Your task to perform on an android device: Open calendar and show me the second week of next month Image 0: 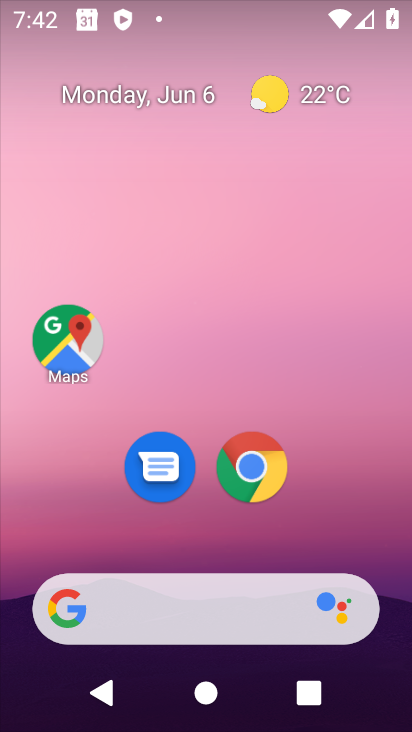
Step 0: drag from (386, 510) to (372, 175)
Your task to perform on an android device: Open calendar and show me the second week of next month Image 1: 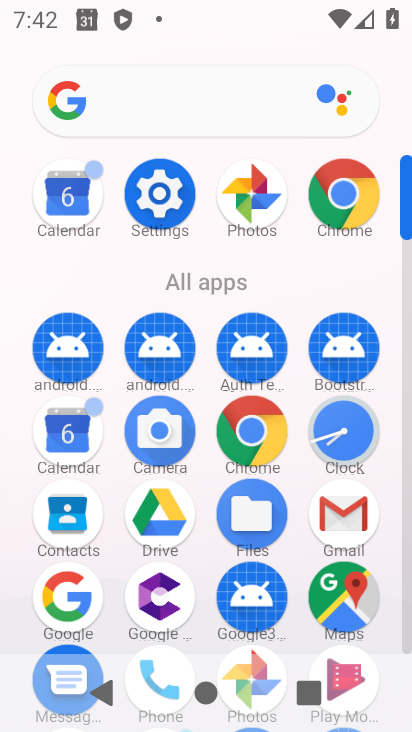
Step 1: click (77, 453)
Your task to perform on an android device: Open calendar and show me the second week of next month Image 2: 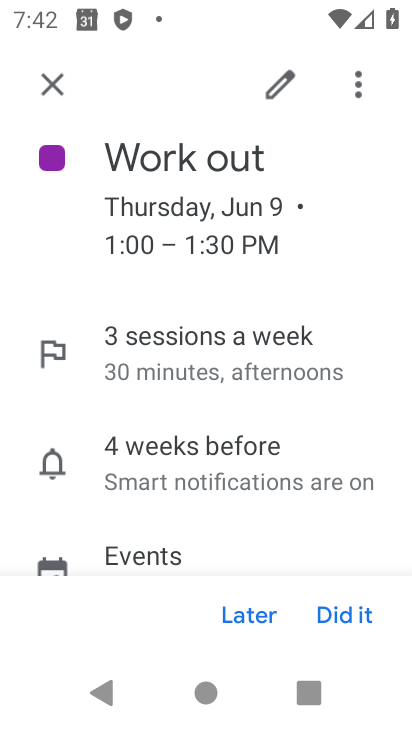
Step 2: click (53, 89)
Your task to perform on an android device: Open calendar and show me the second week of next month Image 3: 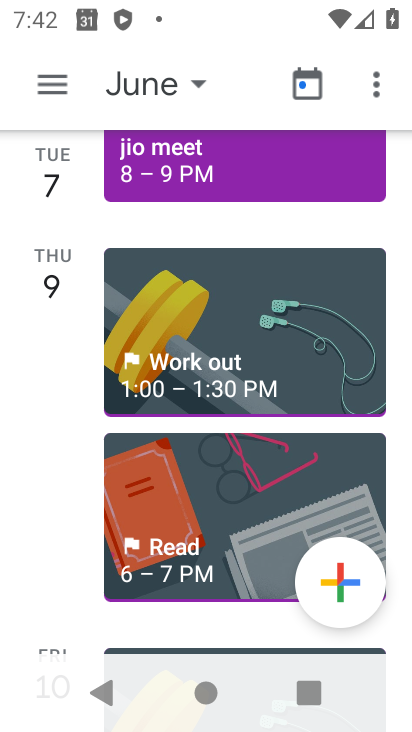
Step 3: click (201, 84)
Your task to perform on an android device: Open calendar and show me the second week of next month Image 4: 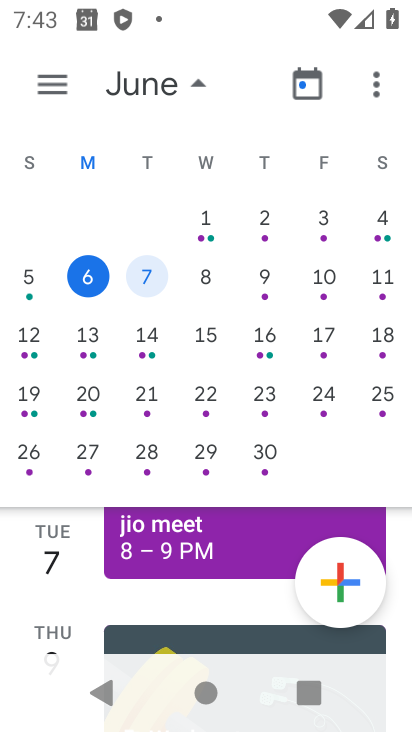
Step 4: drag from (387, 186) to (11, 192)
Your task to perform on an android device: Open calendar and show me the second week of next month Image 5: 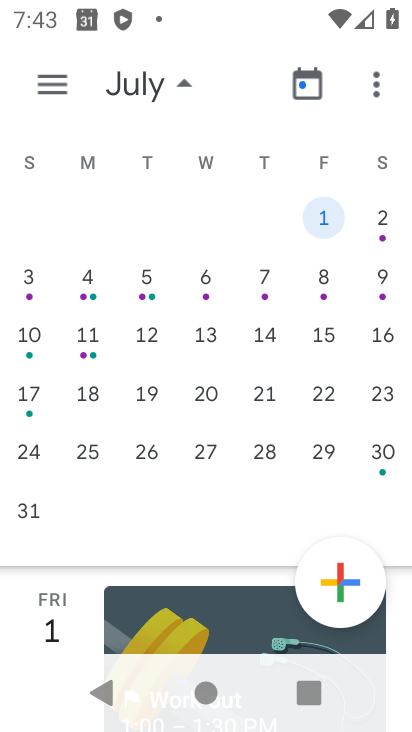
Step 5: click (92, 342)
Your task to perform on an android device: Open calendar and show me the second week of next month Image 6: 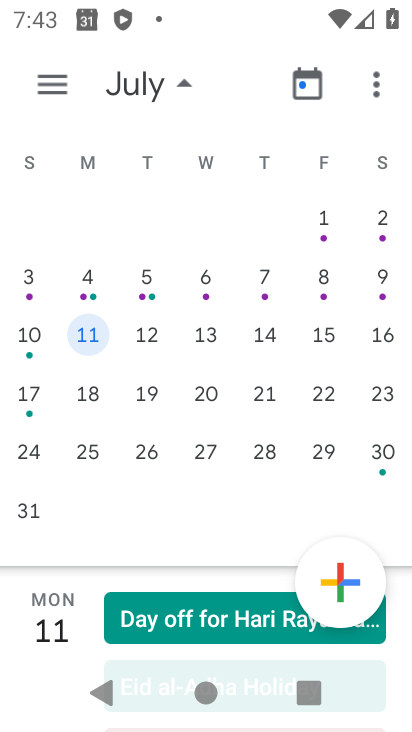
Step 6: task complete